Your task to perform on an android device: toggle notifications settings in the gmail app Image 0: 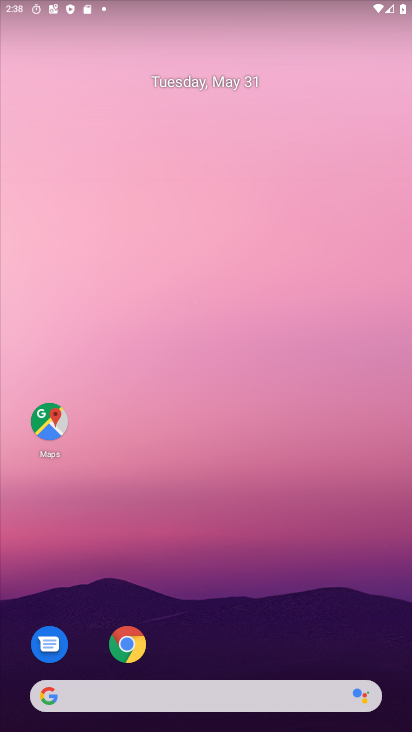
Step 0: drag from (392, 707) to (322, 170)
Your task to perform on an android device: toggle notifications settings in the gmail app Image 1: 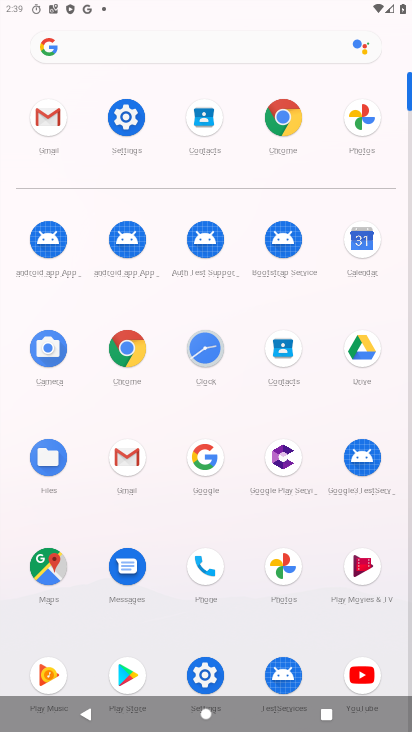
Step 1: click (115, 456)
Your task to perform on an android device: toggle notifications settings in the gmail app Image 2: 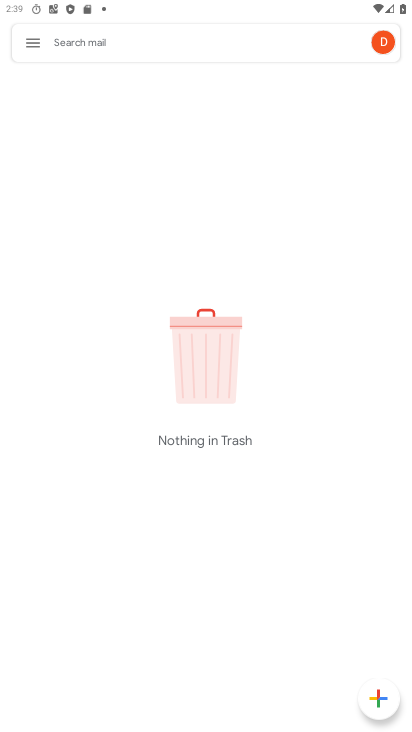
Step 2: click (32, 42)
Your task to perform on an android device: toggle notifications settings in the gmail app Image 3: 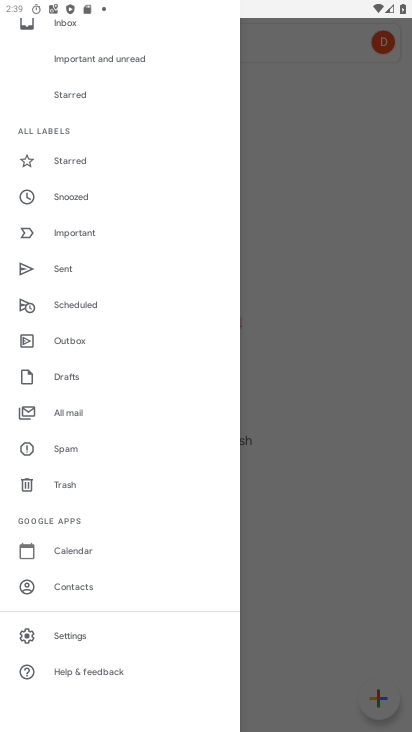
Step 3: click (58, 635)
Your task to perform on an android device: toggle notifications settings in the gmail app Image 4: 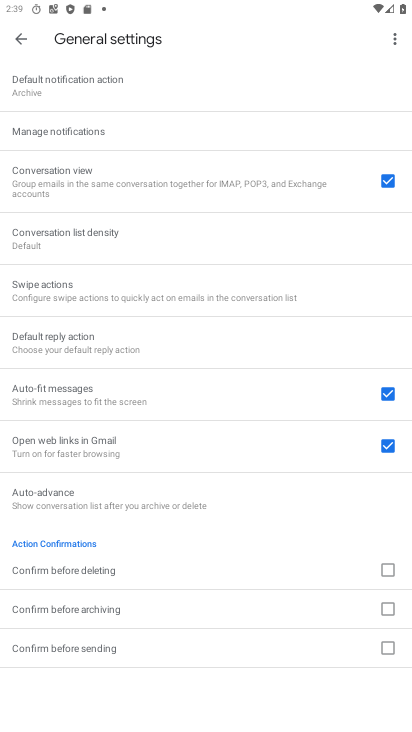
Step 4: click (71, 129)
Your task to perform on an android device: toggle notifications settings in the gmail app Image 5: 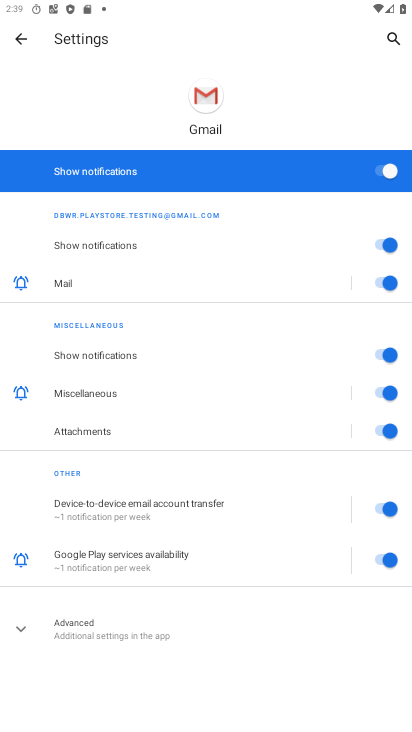
Step 5: click (379, 170)
Your task to perform on an android device: toggle notifications settings in the gmail app Image 6: 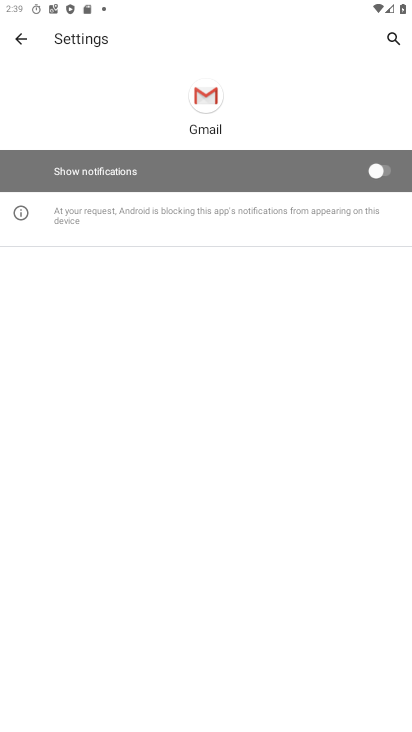
Step 6: task complete